Your task to perform on an android device: toggle pop-ups in chrome Image 0: 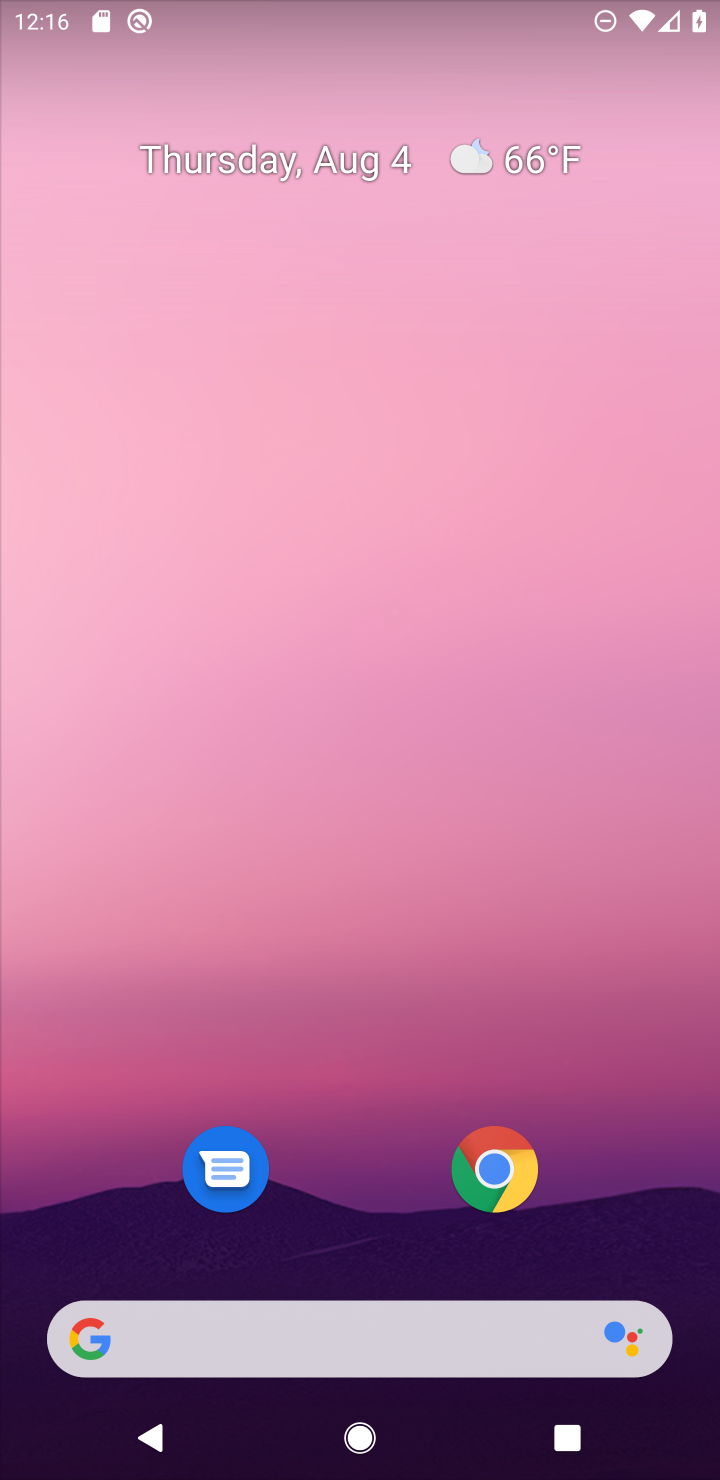
Step 0: click (497, 1185)
Your task to perform on an android device: toggle pop-ups in chrome Image 1: 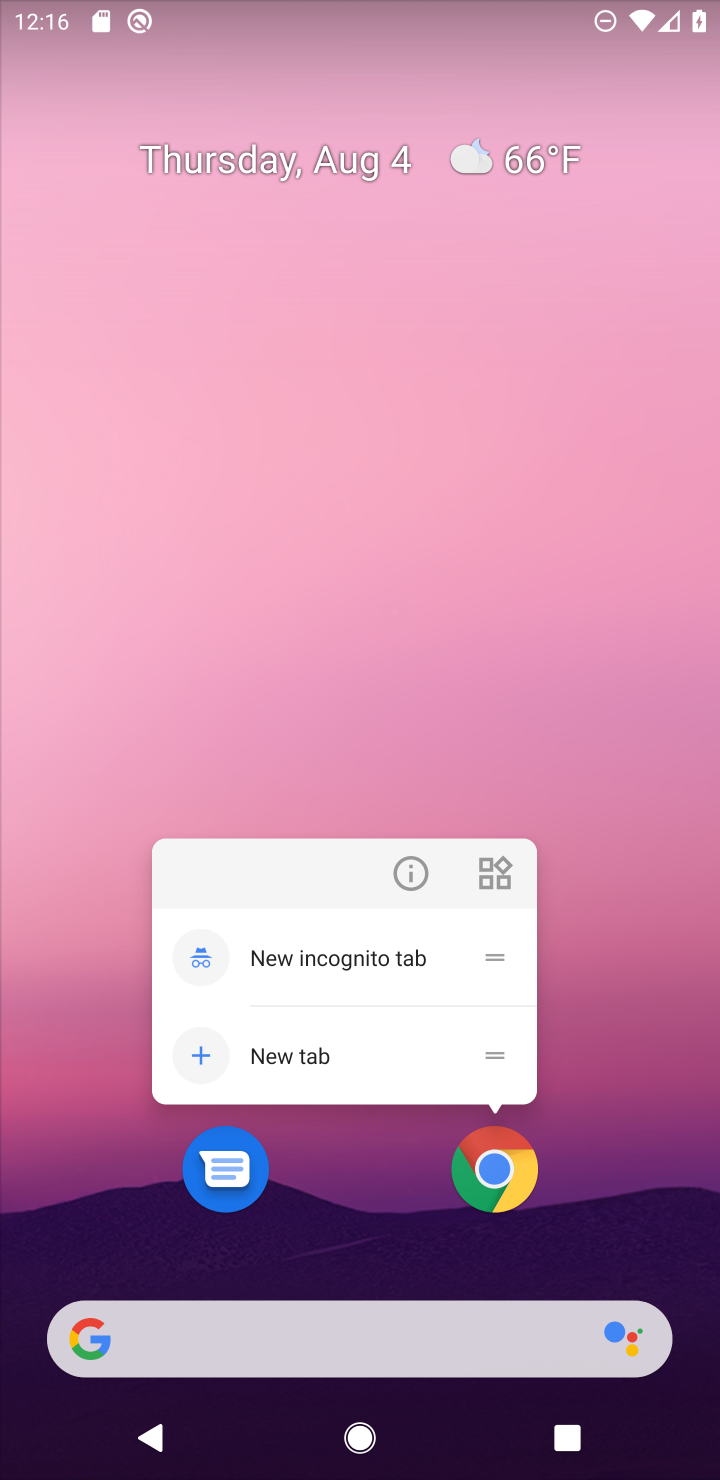
Step 1: click (499, 1179)
Your task to perform on an android device: toggle pop-ups in chrome Image 2: 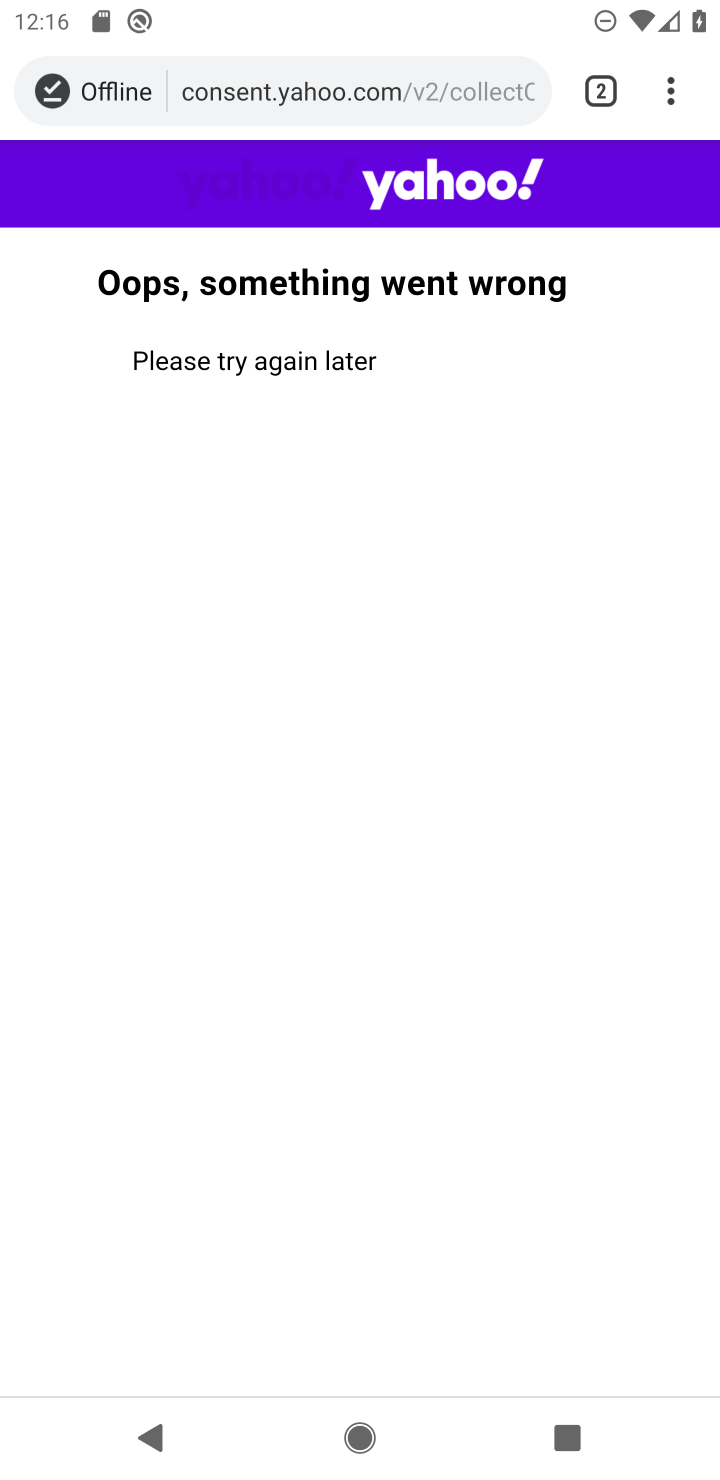
Step 2: drag from (671, 90) to (333, 1026)
Your task to perform on an android device: toggle pop-ups in chrome Image 3: 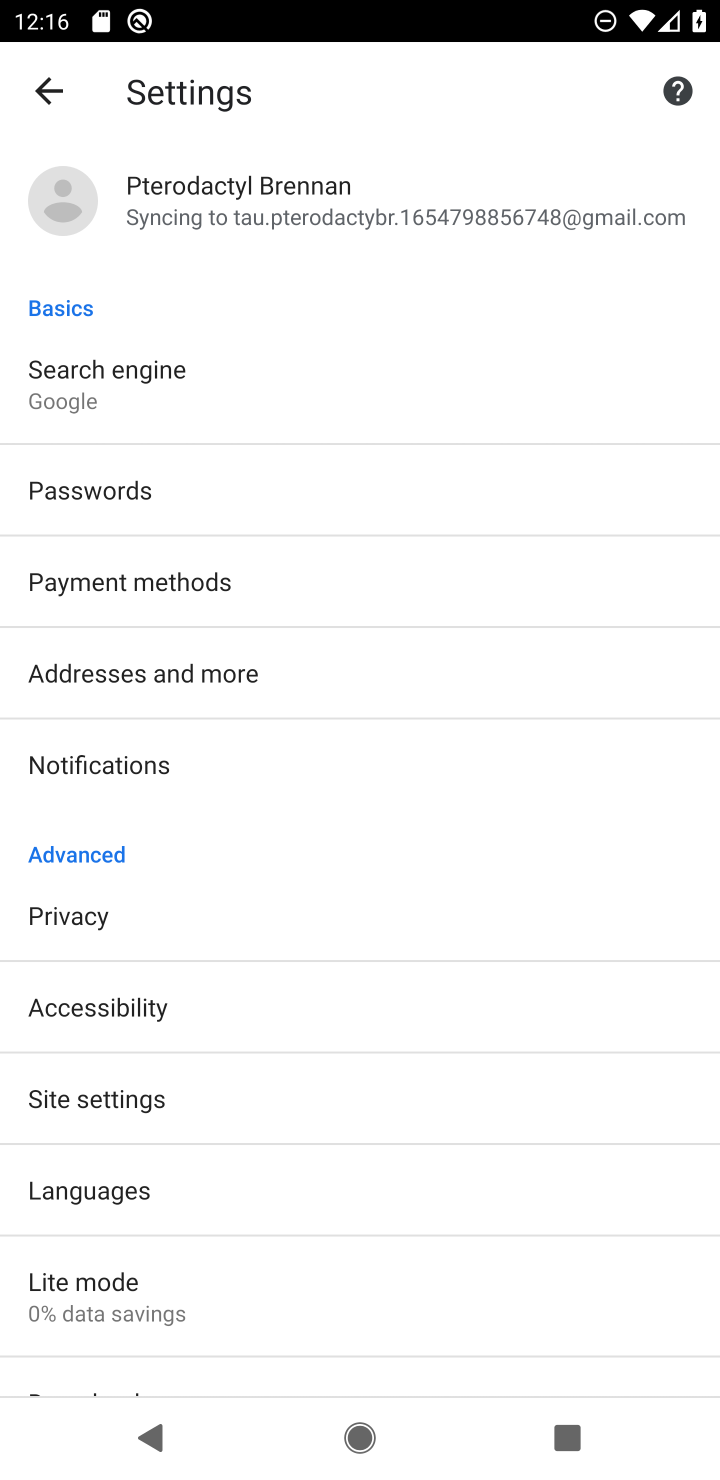
Step 3: click (112, 1101)
Your task to perform on an android device: toggle pop-ups in chrome Image 4: 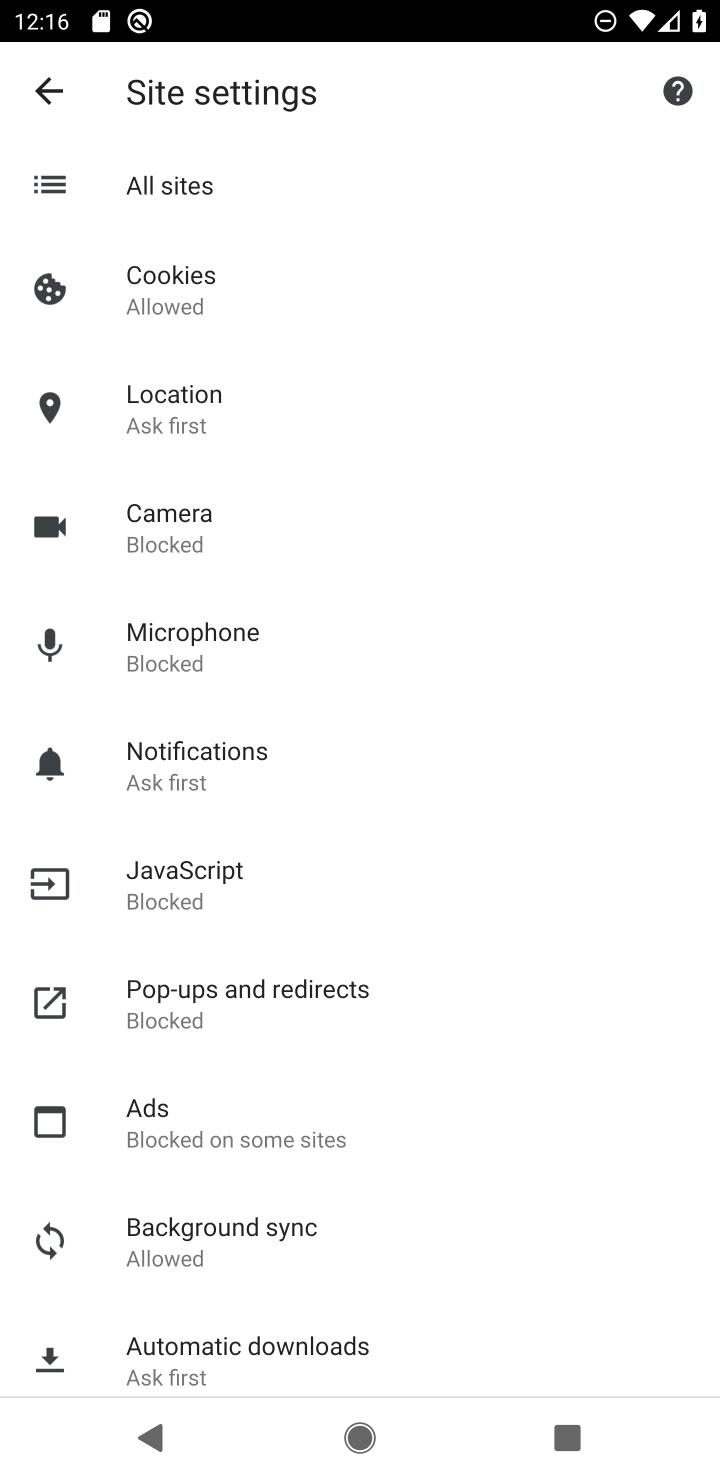
Step 4: click (168, 1004)
Your task to perform on an android device: toggle pop-ups in chrome Image 5: 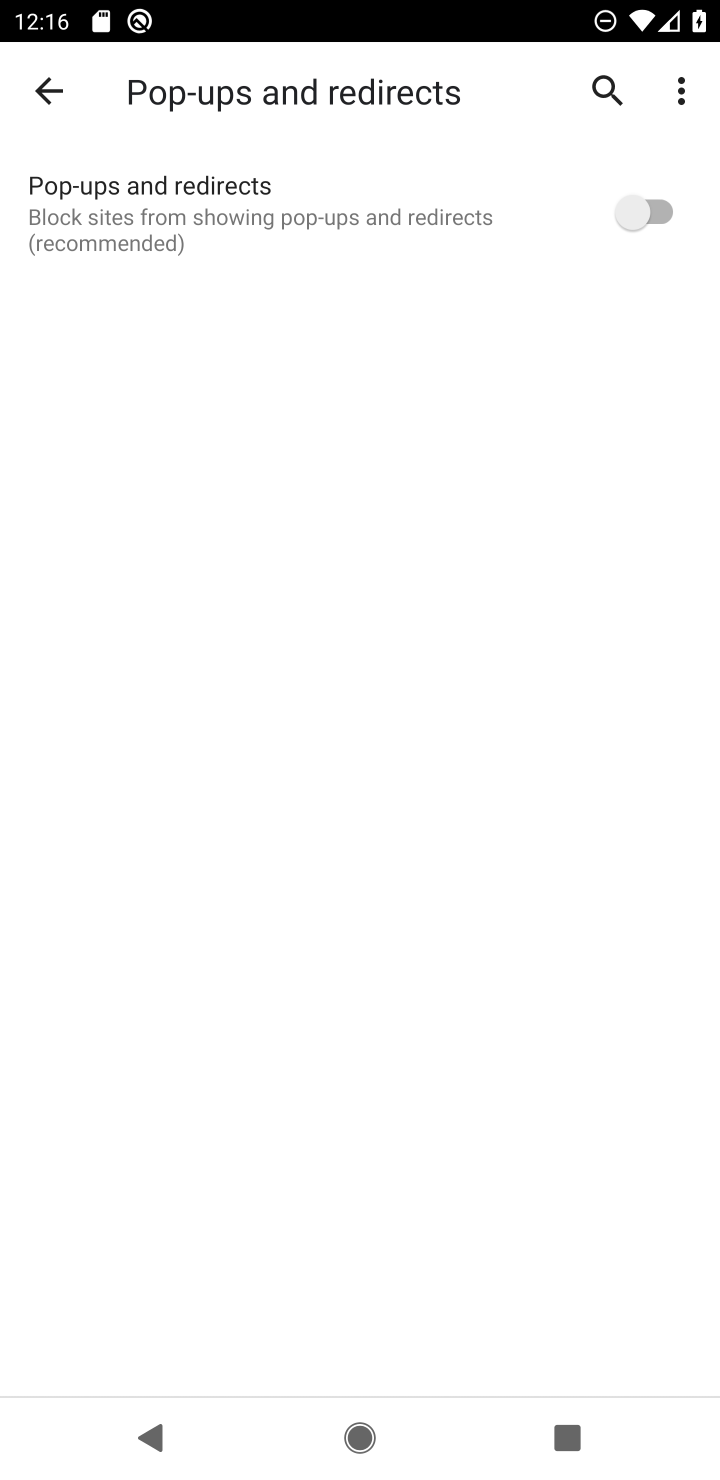
Step 5: click (613, 207)
Your task to perform on an android device: toggle pop-ups in chrome Image 6: 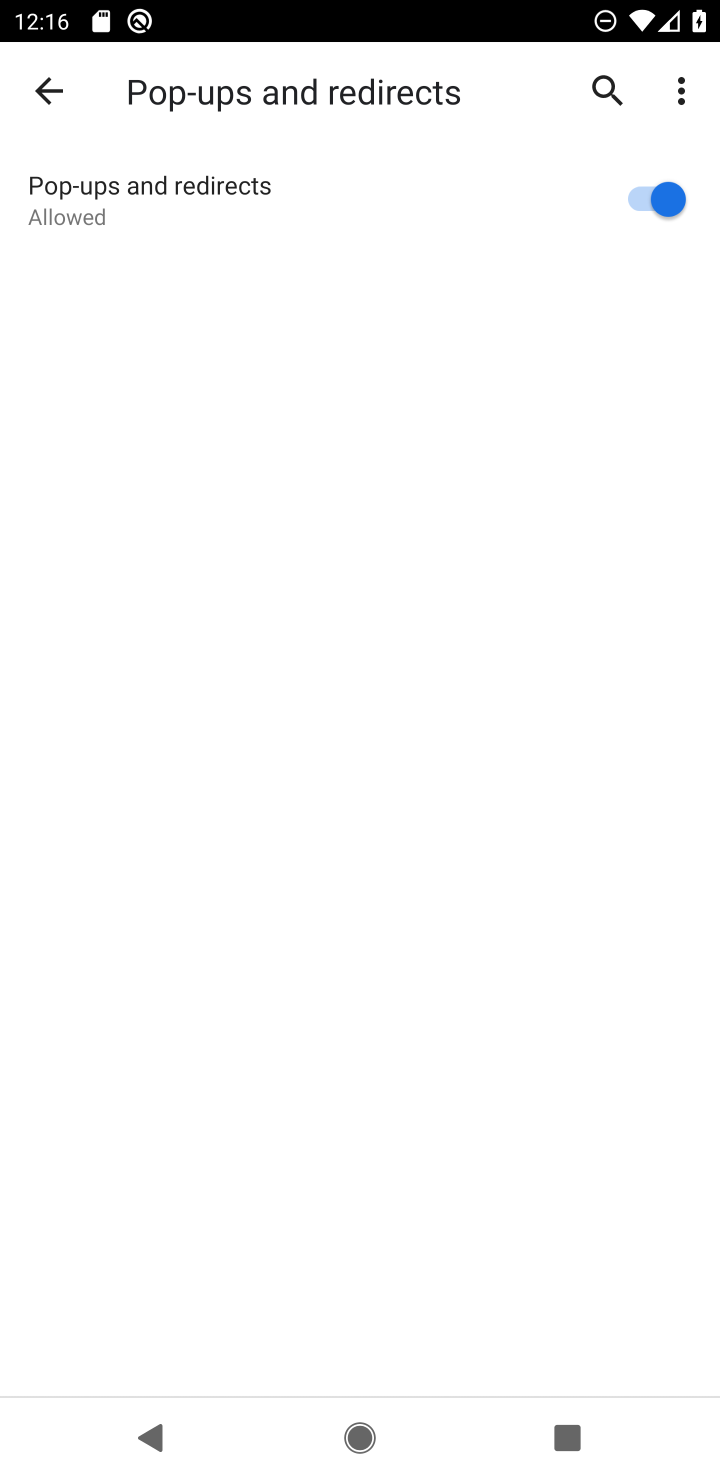
Step 6: task complete